Your task to perform on an android device: toggle notification dots Image 0: 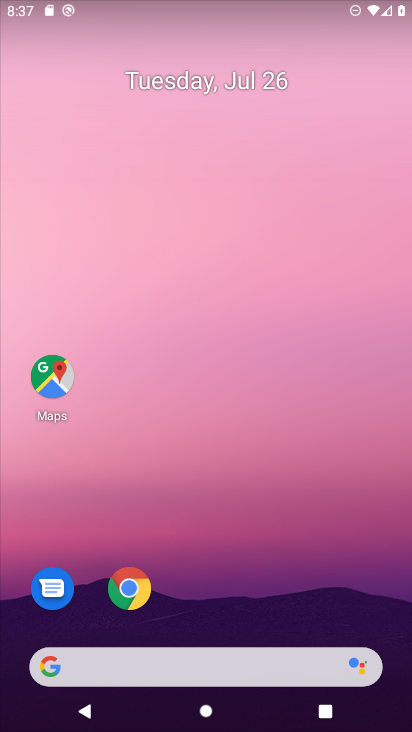
Step 0: drag from (250, 621) to (207, 3)
Your task to perform on an android device: toggle notification dots Image 1: 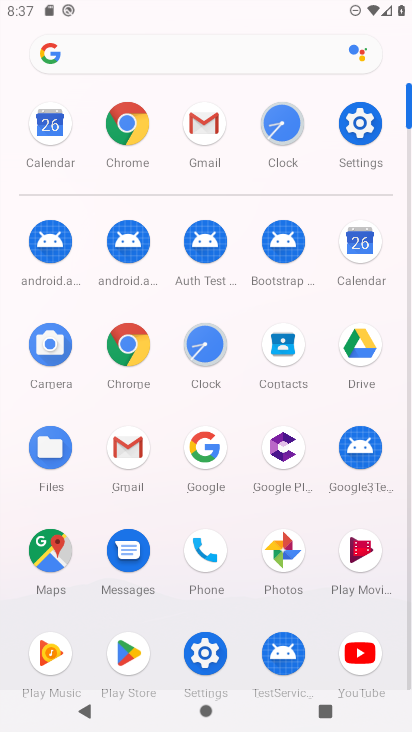
Step 1: click (361, 124)
Your task to perform on an android device: toggle notification dots Image 2: 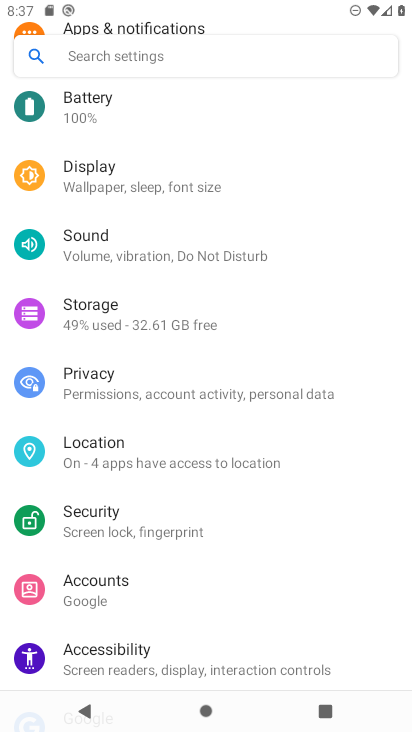
Step 2: click (340, 394)
Your task to perform on an android device: toggle notification dots Image 3: 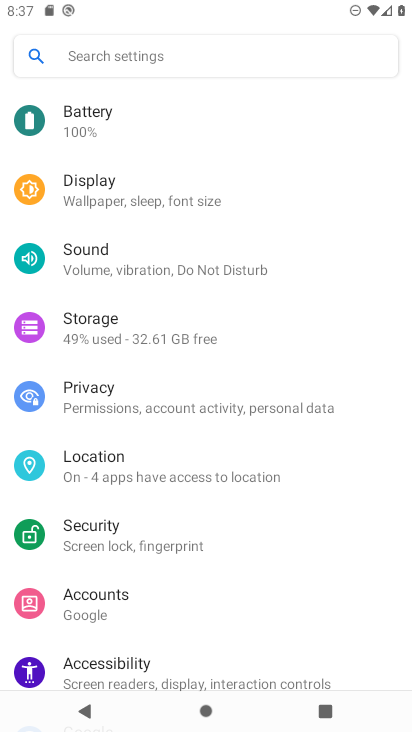
Step 3: drag from (280, 202) to (321, 467)
Your task to perform on an android device: toggle notification dots Image 4: 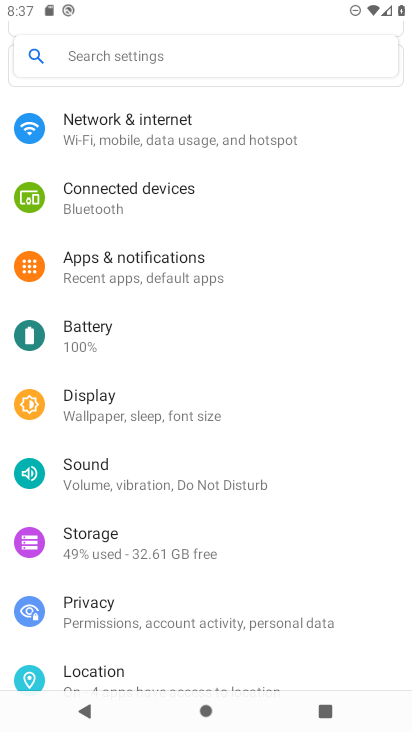
Step 4: click (120, 273)
Your task to perform on an android device: toggle notification dots Image 5: 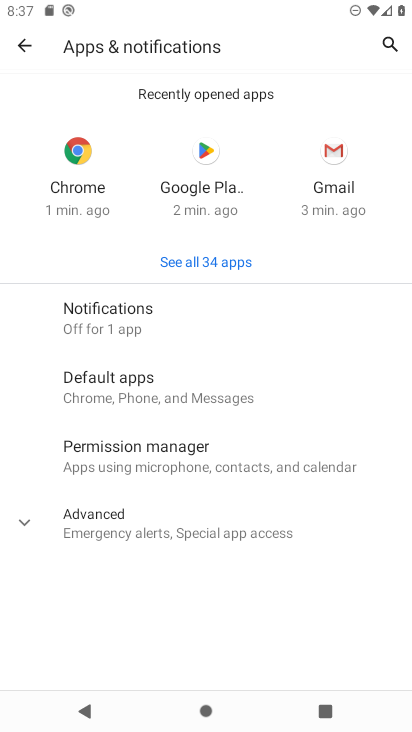
Step 5: click (102, 324)
Your task to perform on an android device: toggle notification dots Image 6: 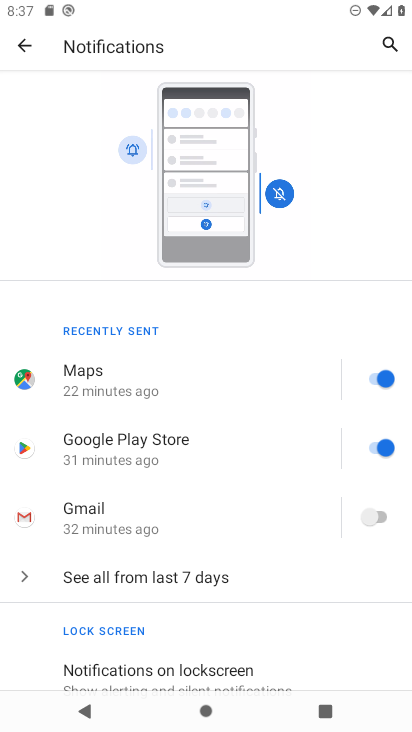
Step 6: drag from (179, 556) to (154, 201)
Your task to perform on an android device: toggle notification dots Image 7: 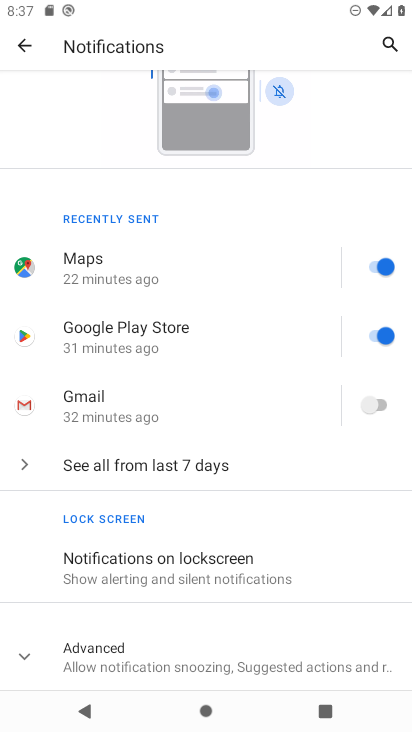
Step 7: click (21, 654)
Your task to perform on an android device: toggle notification dots Image 8: 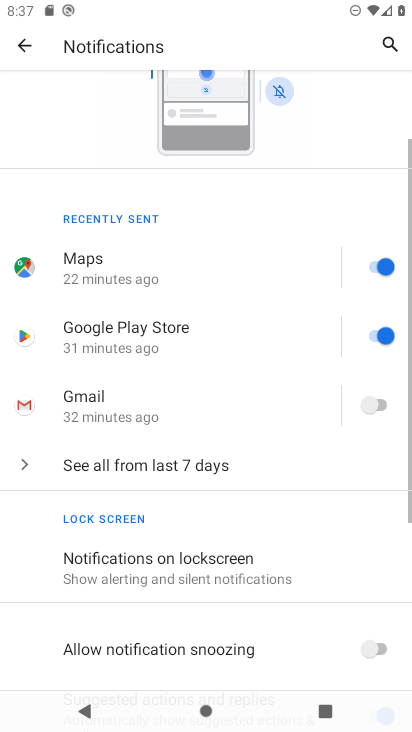
Step 8: drag from (142, 646) to (112, 178)
Your task to perform on an android device: toggle notification dots Image 9: 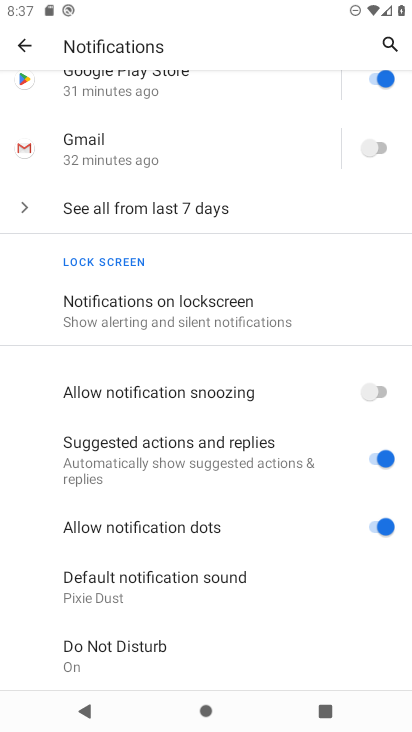
Step 9: click (383, 527)
Your task to perform on an android device: toggle notification dots Image 10: 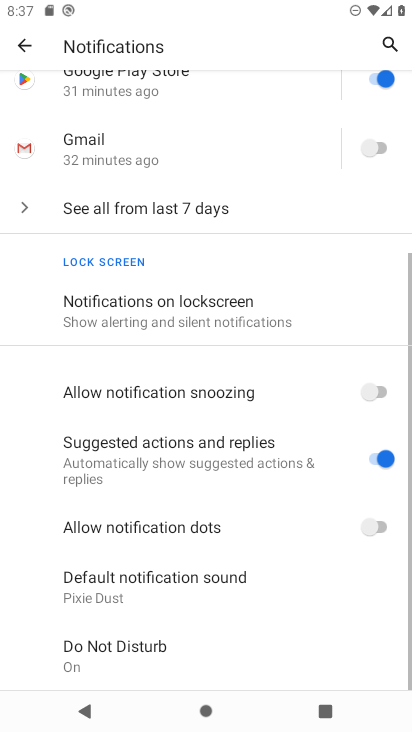
Step 10: task complete